Your task to perform on an android device: turn on wifi Image 0: 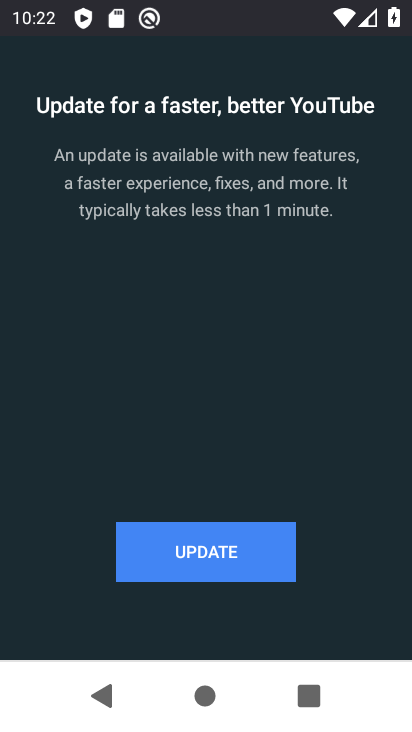
Step 0: press back button
Your task to perform on an android device: turn on wifi Image 1: 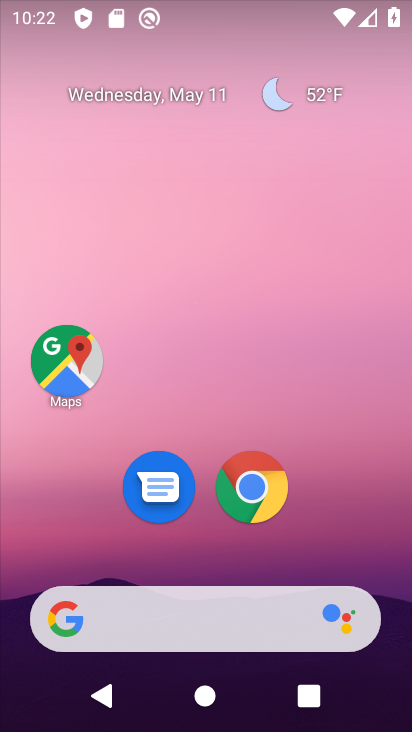
Step 1: drag from (349, 535) to (236, 2)
Your task to perform on an android device: turn on wifi Image 2: 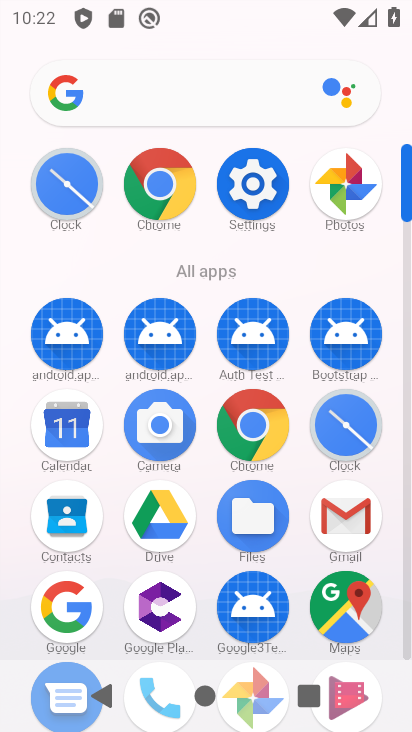
Step 2: click (254, 181)
Your task to perform on an android device: turn on wifi Image 3: 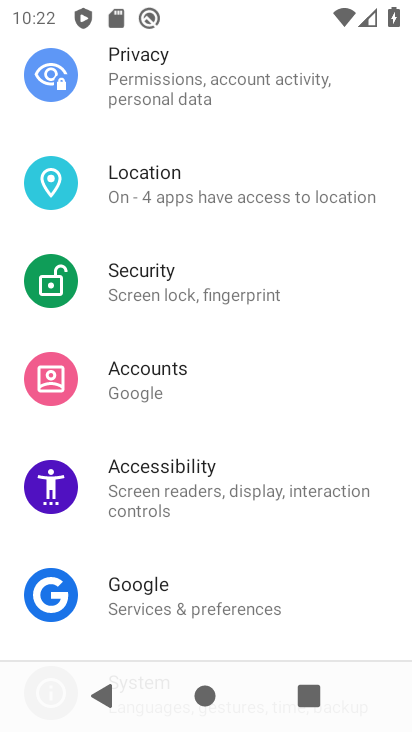
Step 3: drag from (230, 132) to (245, 513)
Your task to perform on an android device: turn on wifi Image 4: 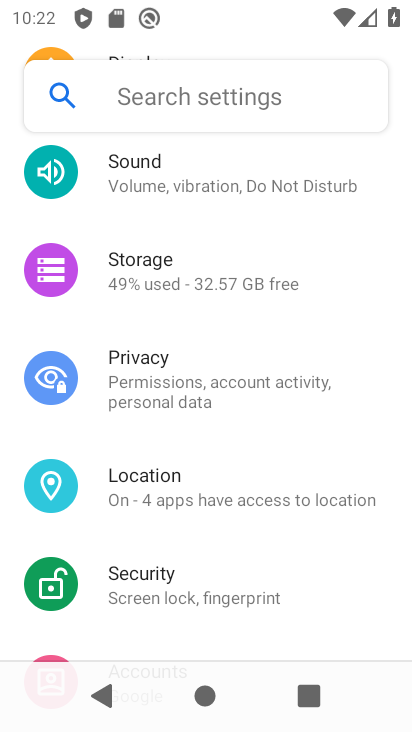
Step 4: drag from (329, 194) to (345, 581)
Your task to perform on an android device: turn on wifi Image 5: 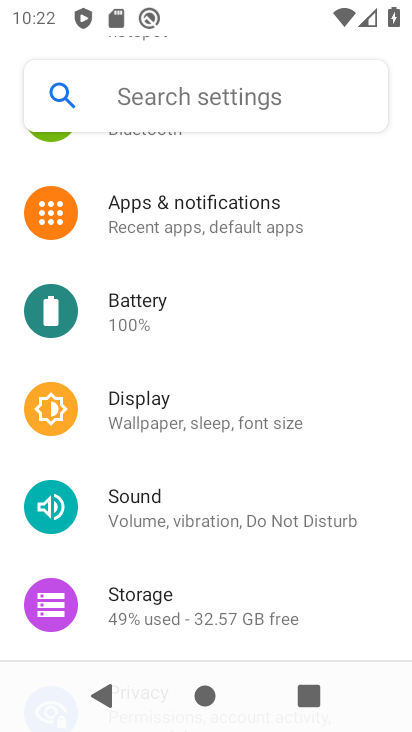
Step 5: drag from (247, 436) to (231, 573)
Your task to perform on an android device: turn on wifi Image 6: 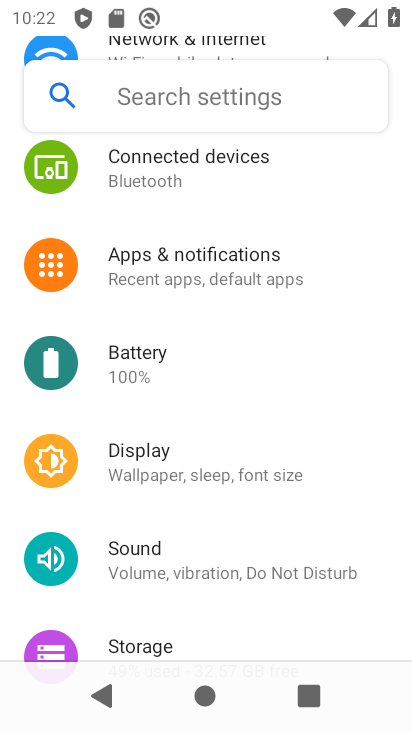
Step 6: drag from (307, 165) to (300, 580)
Your task to perform on an android device: turn on wifi Image 7: 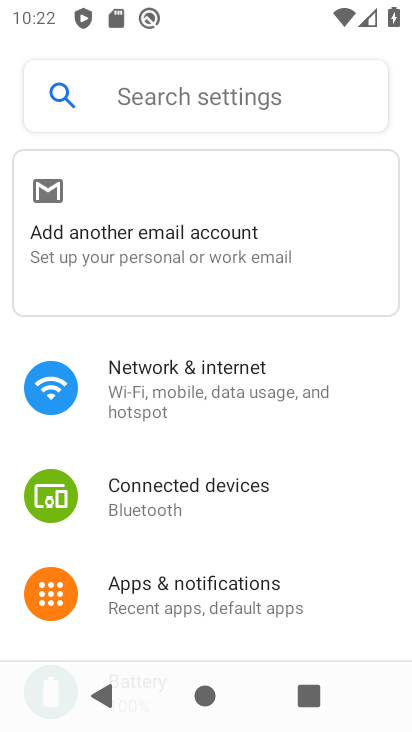
Step 7: click (199, 361)
Your task to perform on an android device: turn on wifi Image 8: 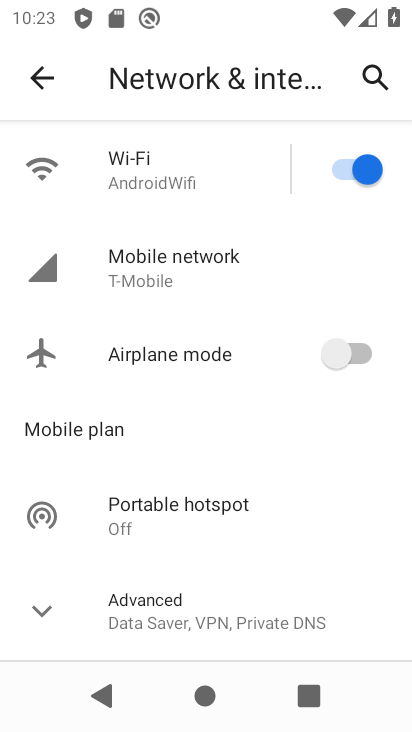
Step 8: click (37, 598)
Your task to perform on an android device: turn on wifi Image 9: 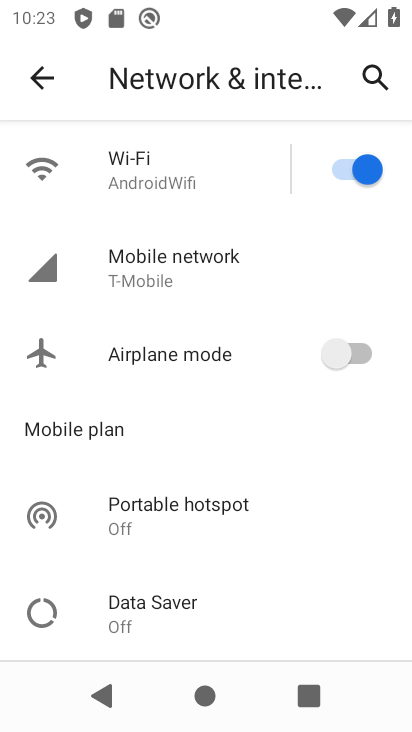
Step 9: task complete